Your task to perform on an android device: Open Wikipedia Image 0: 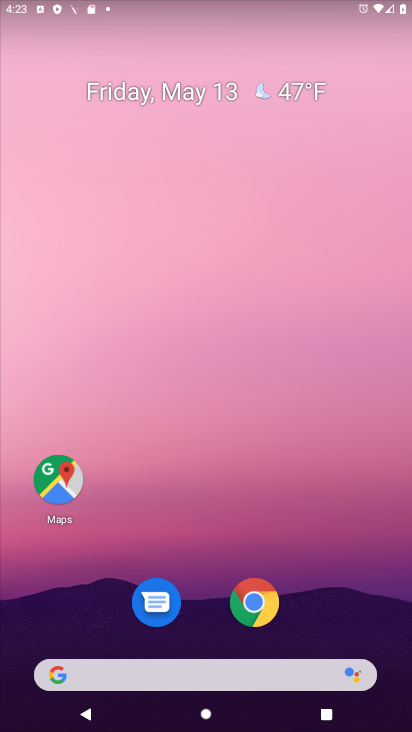
Step 0: click (251, 606)
Your task to perform on an android device: Open Wikipedia Image 1: 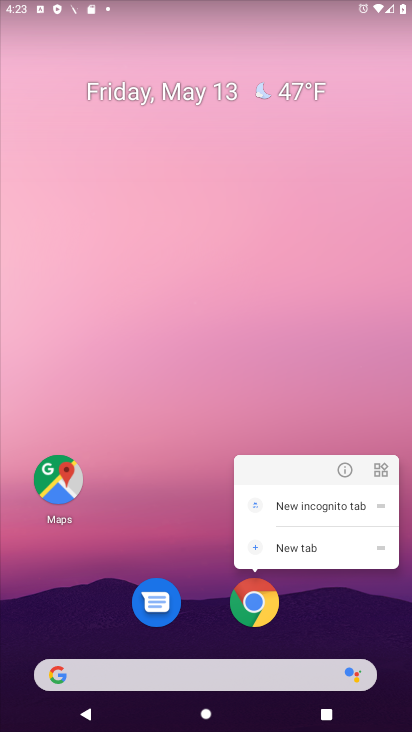
Step 1: click (251, 606)
Your task to perform on an android device: Open Wikipedia Image 2: 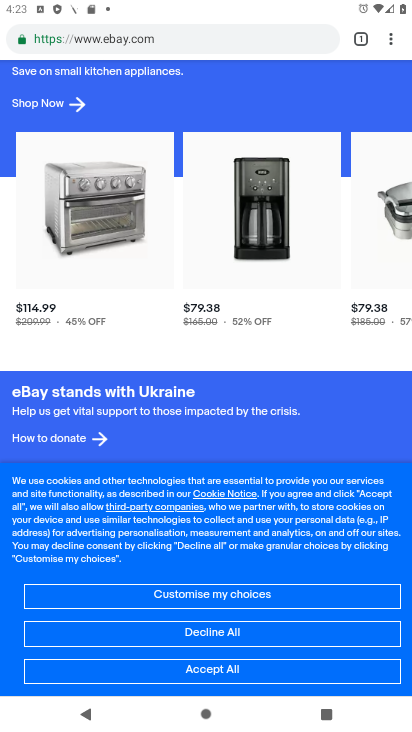
Step 2: click (387, 32)
Your task to perform on an android device: Open Wikipedia Image 3: 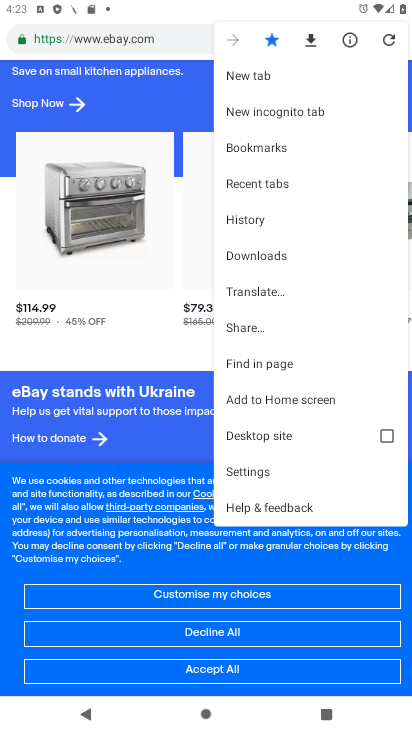
Step 3: click (51, 283)
Your task to perform on an android device: Open Wikipedia Image 4: 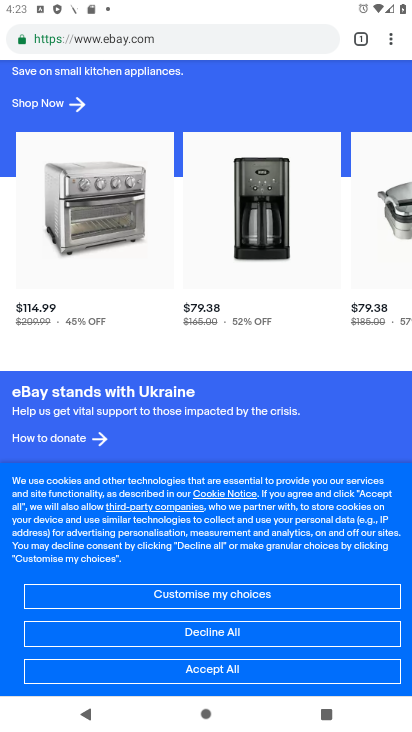
Step 4: click (365, 38)
Your task to perform on an android device: Open Wikipedia Image 5: 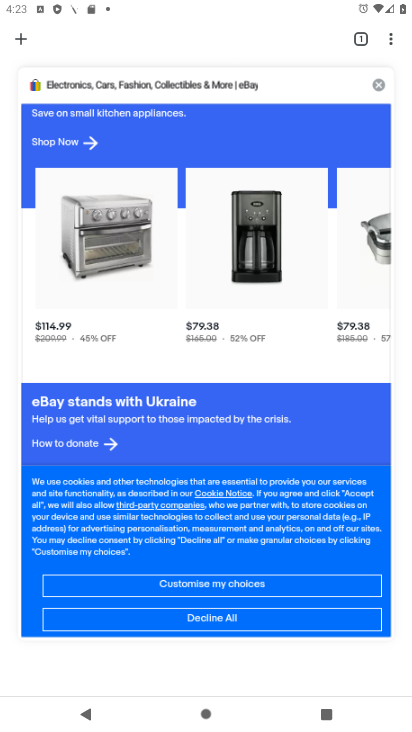
Step 5: click (377, 83)
Your task to perform on an android device: Open Wikipedia Image 6: 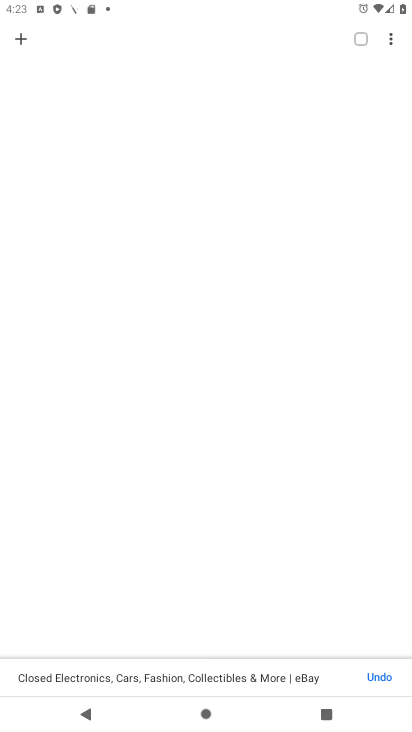
Step 6: click (17, 39)
Your task to perform on an android device: Open Wikipedia Image 7: 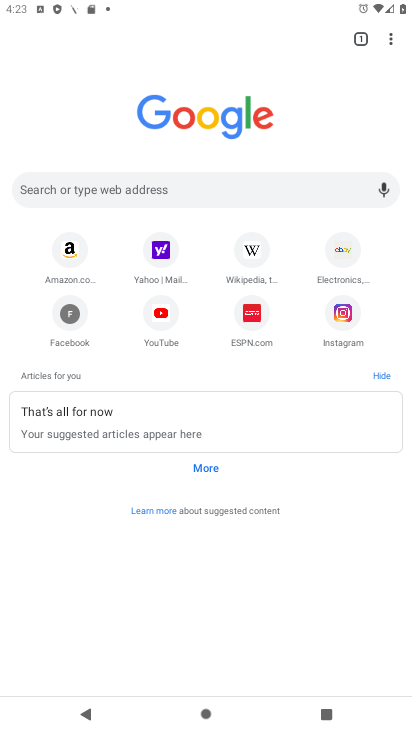
Step 7: click (262, 251)
Your task to perform on an android device: Open Wikipedia Image 8: 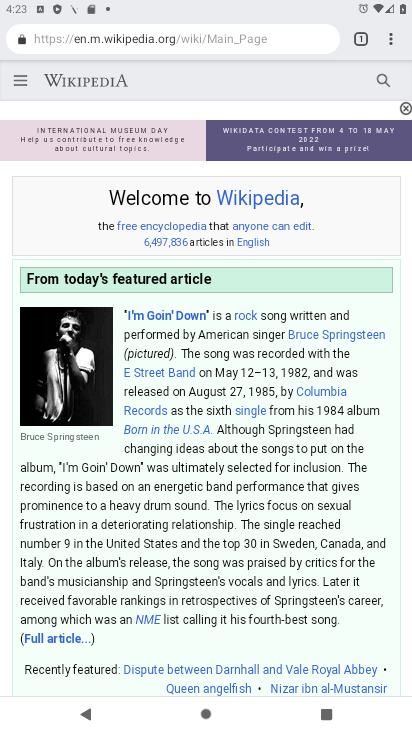
Step 8: task complete